Your task to perform on an android device: open sync settings in chrome Image 0: 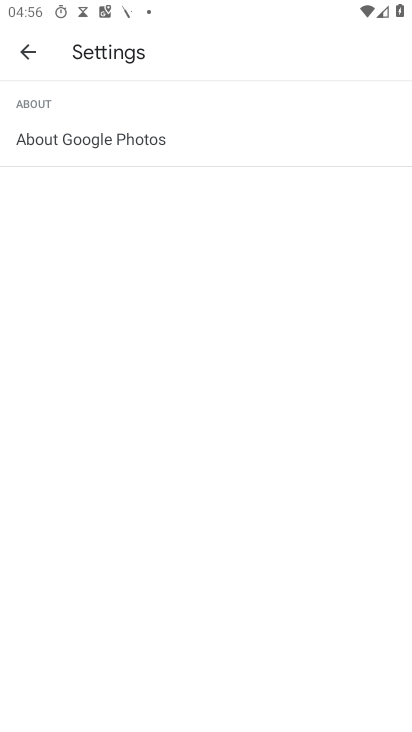
Step 0: press home button
Your task to perform on an android device: open sync settings in chrome Image 1: 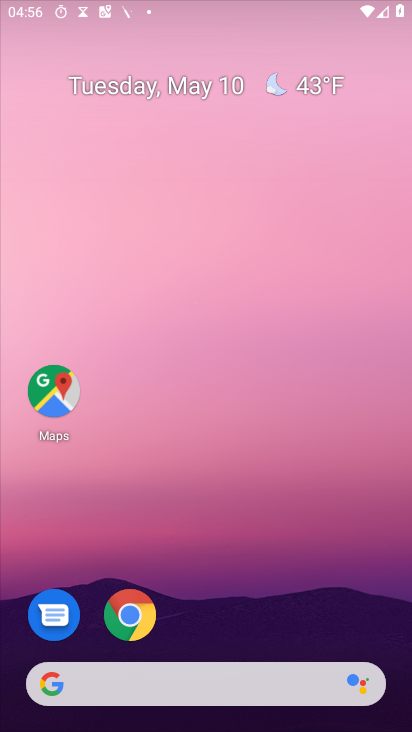
Step 1: drag from (290, 673) to (409, 548)
Your task to perform on an android device: open sync settings in chrome Image 2: 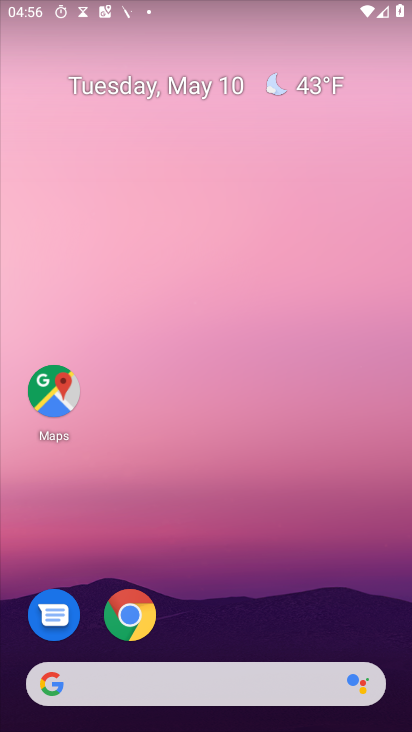
Step 2: click (120, 341)
Your task to perform on an android device: open sync settings in chrome Image 3: 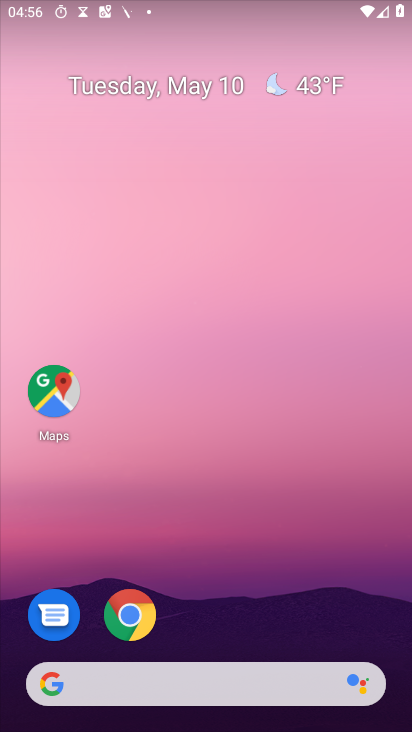
Step 3: drag from (236, 665) to (273, 14)
Your task to perform on an android device: open sync settings in chrome Image 4: 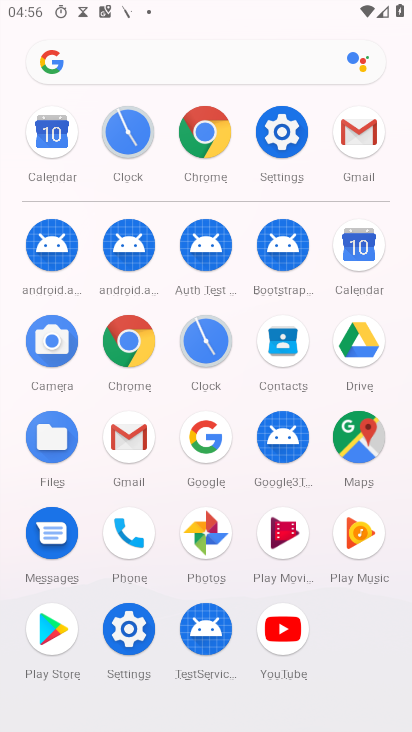
Step 4: click (132, 337)
Your task to perform on an android device: open sync settings in chrome Image 5: 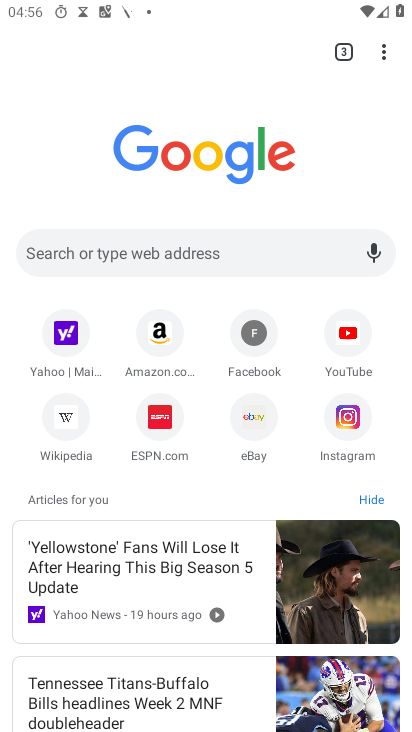
Step 5: drag from (387, 45) to (225, 442)
Your task to perform on an android device: open sync settings in chrome Image 6: 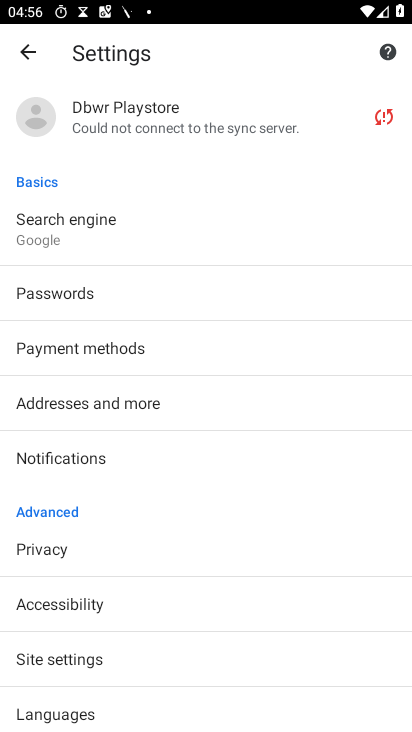
Step 6: drag from (186, 575) to (137, 180)
Your task to perform on an android device: open sync settings in chrome Image 7: 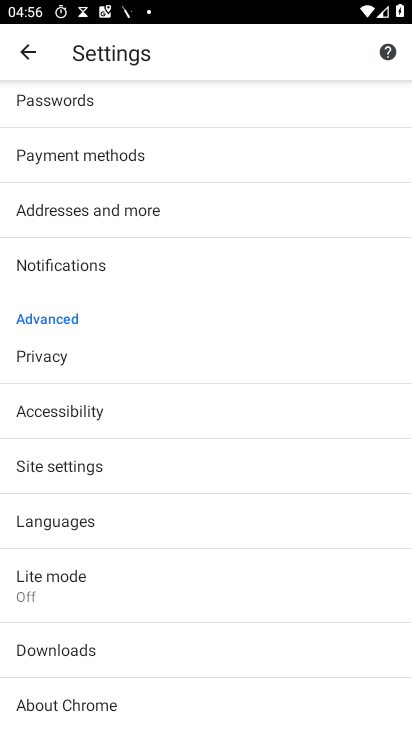
Step 7: click (109, 476)
Your task to perform on an android device: open sync settings in chrome Image 8: 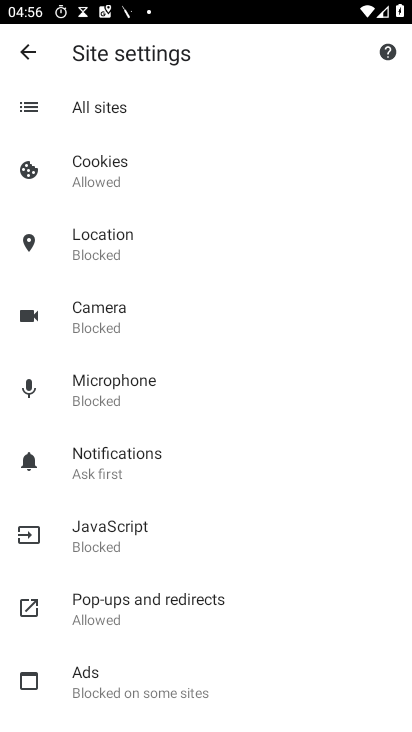
Step 8: drag from (143, 671) to (155, 449)
Your task to perform on an android device: open sync settings in chrome Image 9: 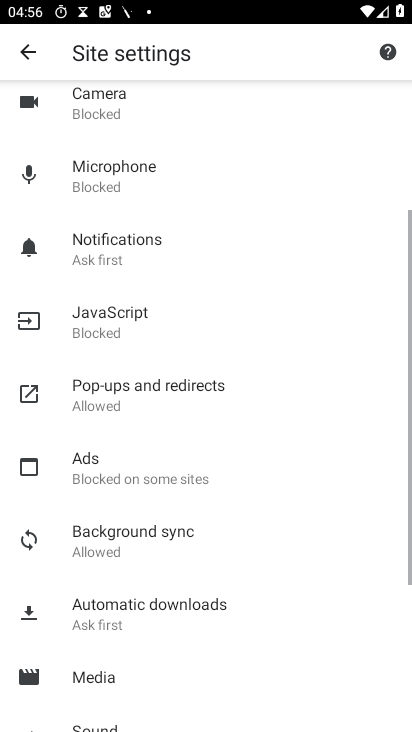
Step 9: drag from (214, 690) to (216, 456)
Your task to perform on an android device: open sync settings in chrome Image 10: 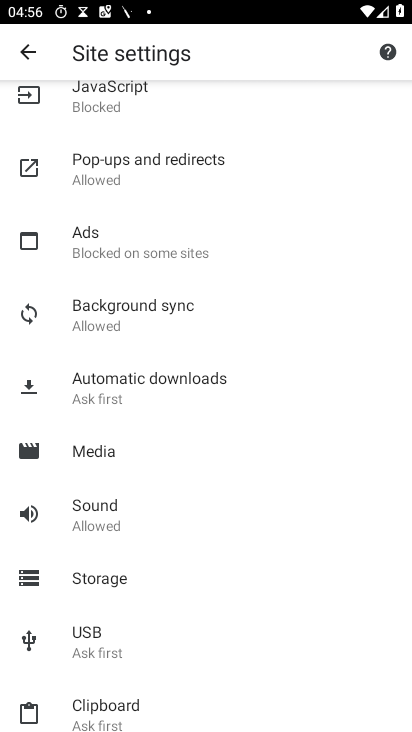
Step 10: click (198, 326)
Your task to perform on an android device: open sync settings in chrome Image 11: 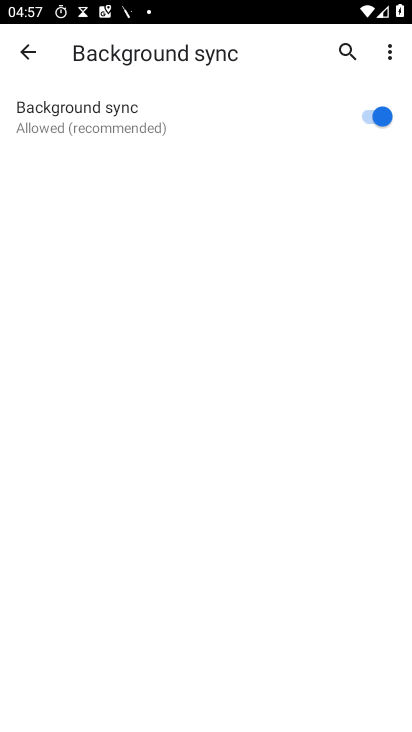
Step 11: task complete